Your task to perform on an android device: change the clock display to analog Image 0: 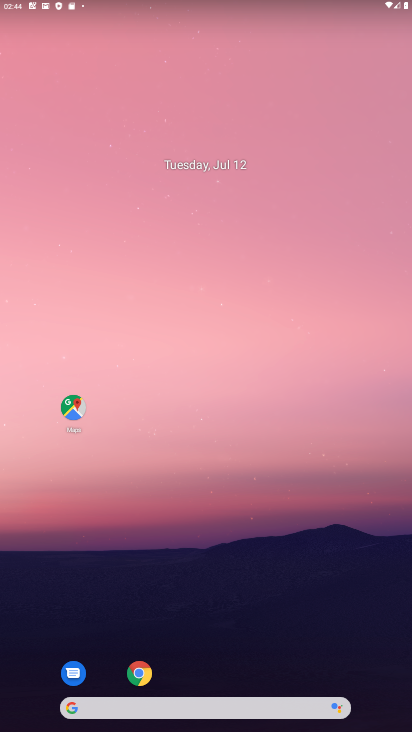
Step 0: press home button
Your task to perform on an android device: change the clock display to analog Image 1: 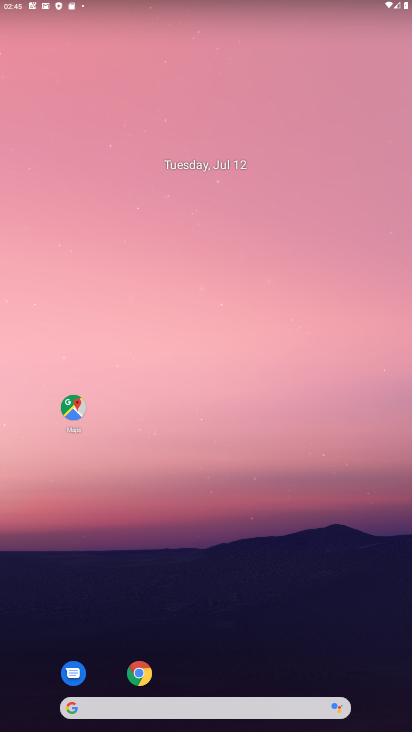
Step 1: drag from (262, 625) to (264, 53)
Your task to perform on an android device: change the clock display to analog Image 2: 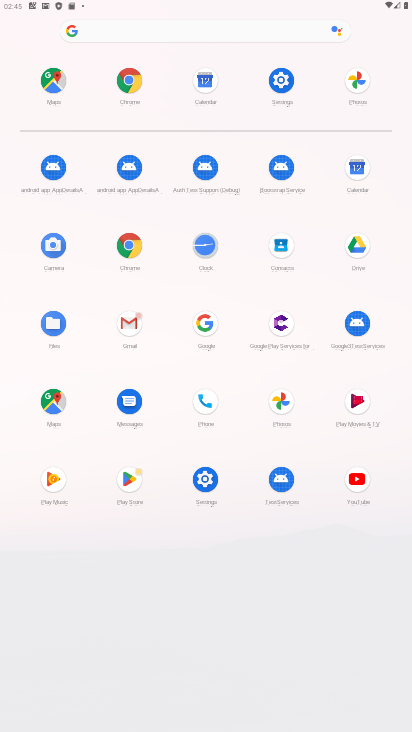
Step 2: click (205, 235)
Your task to perform on an android device: change the clock display to analog Image 3: 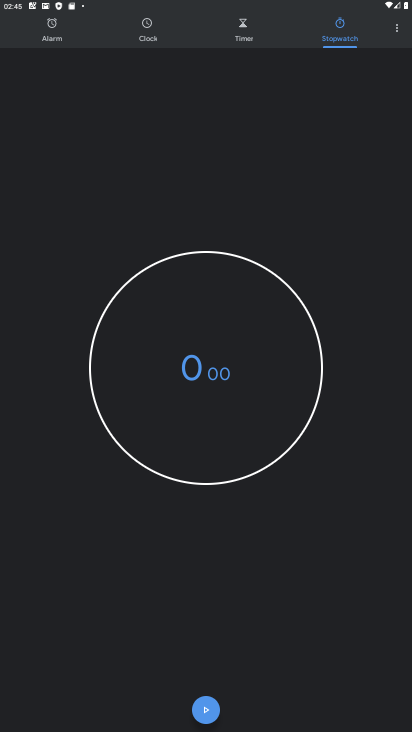
Step 3: click (400, 29)
Your task to perform on an android device: change the clock display to analog Image 4: 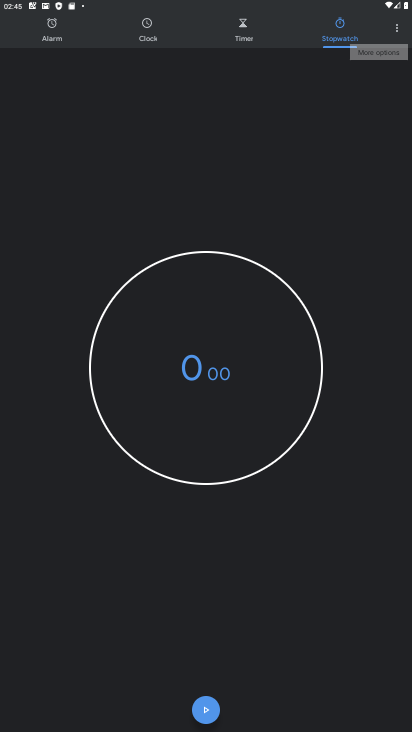
Step 4: click (398, 28)
Your task to perform on an android device: change the clock display to analog Image 5: 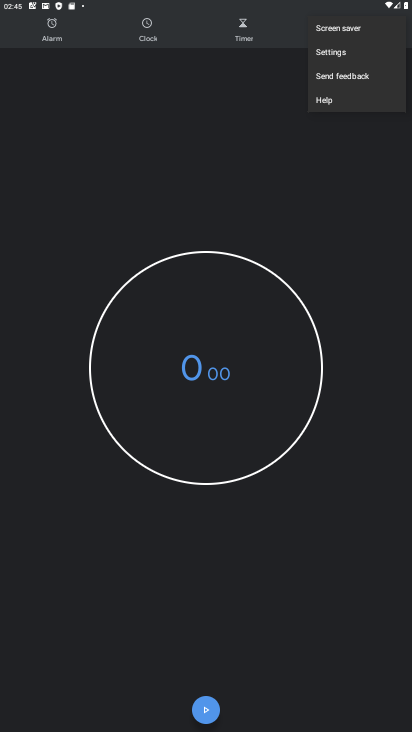
Step 5: click (337, 56)
Your task to perform on an android device: change the clock display to analog Image 6: 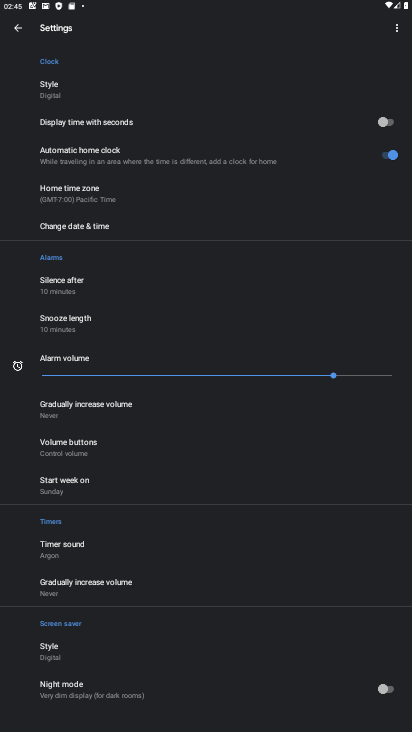
Step 6: click (51, 93)
Your task to perform on an android device: change the clock display to analog Image 7: 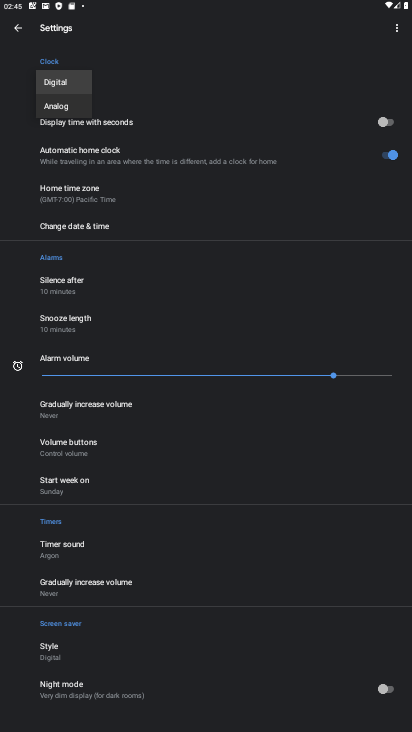
Step 7: click (65, 106)
Your task to perform on an android device: change the clock display to analog Image 8: 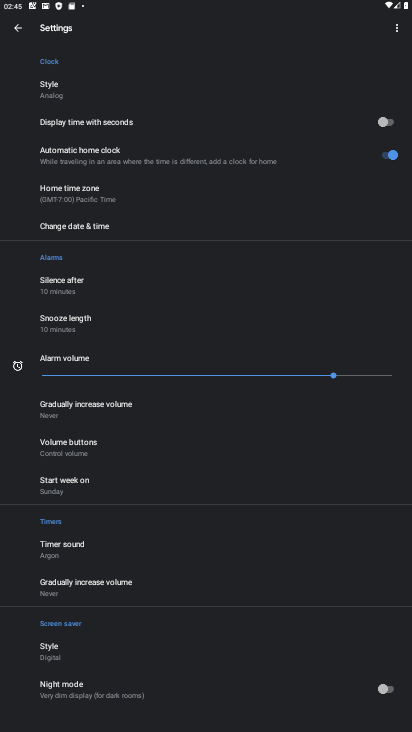
Step 8: task complete